Your task to perform on an android device: uninstall "Roku - Official Remote Control" Image 0: 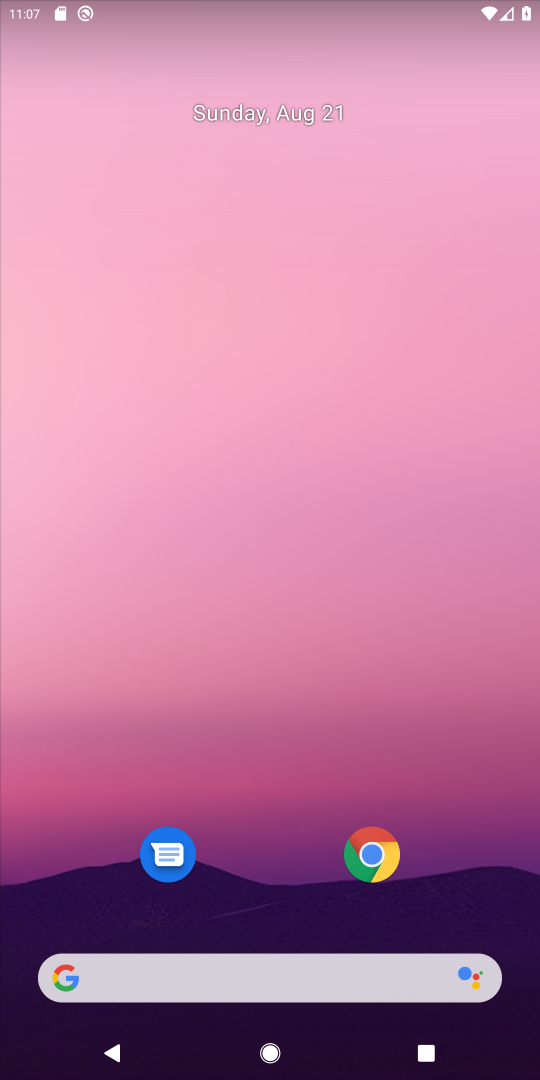
Step 0: click (291, 42)
Your task to perform on an android device: uninstall "Roku - Official Remote Control" Image 1: 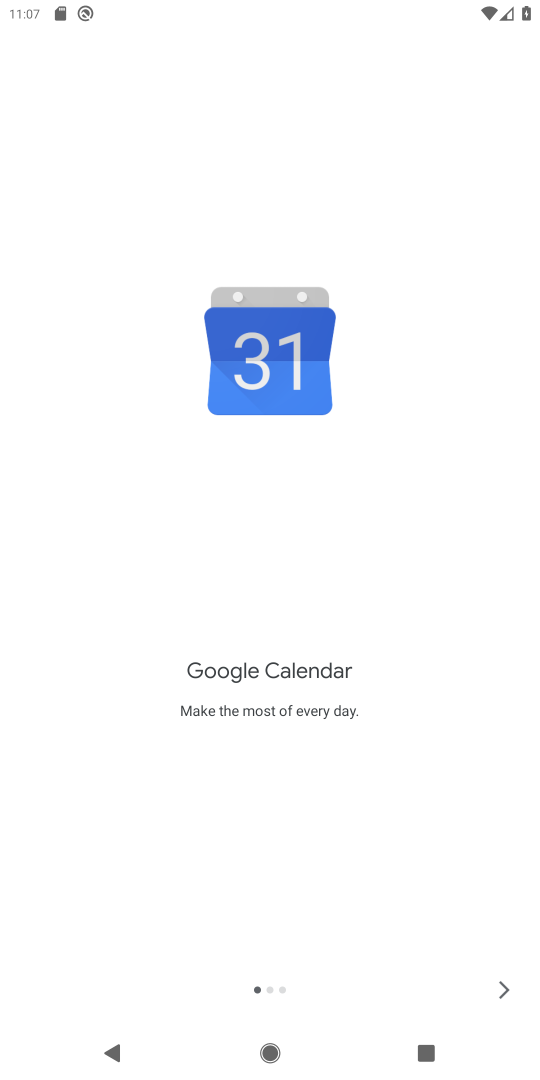
Step 1: press back button
Your task to perform on an android device: uninstall "Roku - Official Remote Control" Image 2: 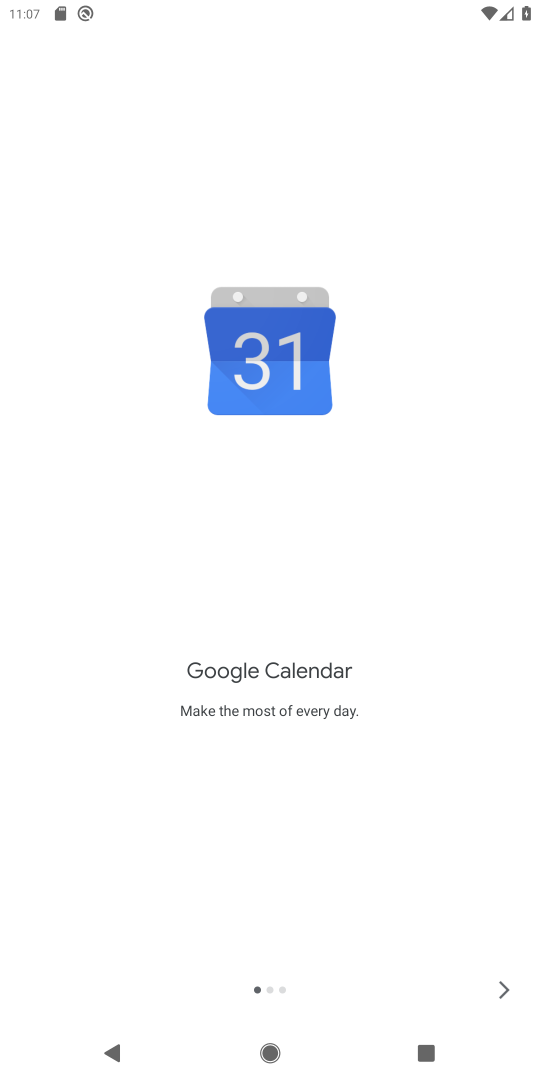
Step 2: press home button
Your task to perform on an android device: uninstall "Roku - Official Remote Control" Image 3: 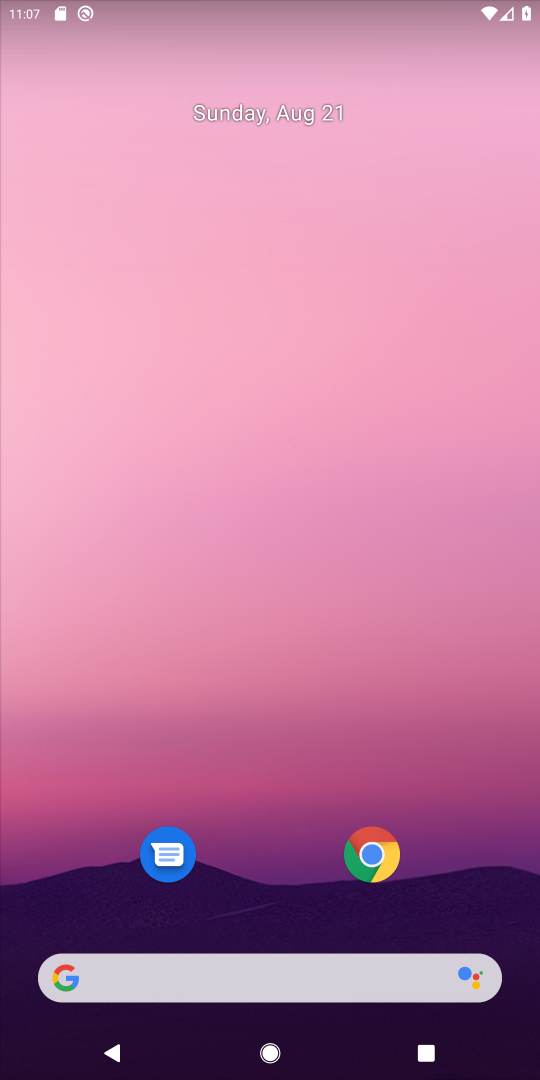
Step 3: drag from (277, 920) to (50, 1)
Your task to perform on an android device: uninstall "Roku - Official Remote Control" Image 4: 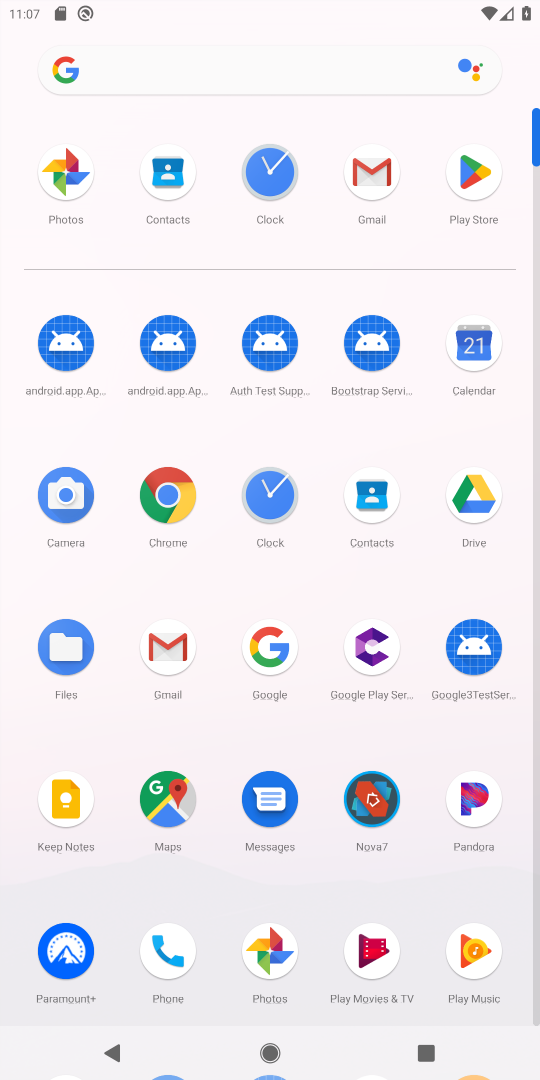
Step 4: click (438, 206)
Your task to perform on an android device: uninstall "Roku - Official Remote Control" Image 5: 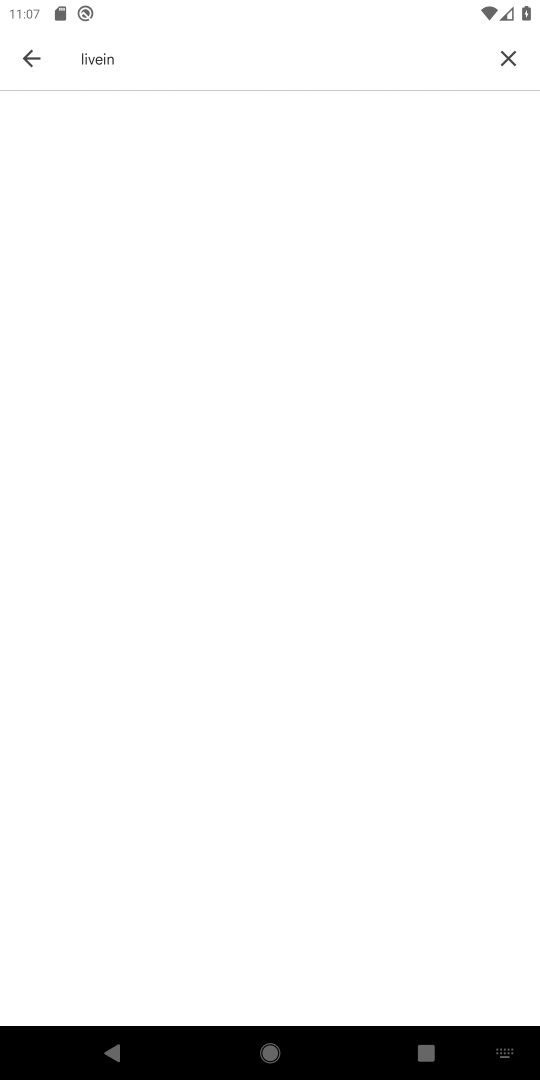
Step 5: click (462, 164)
Your task to perform on an android device: uninstall "Roku - Official Remote Control" Image 6: 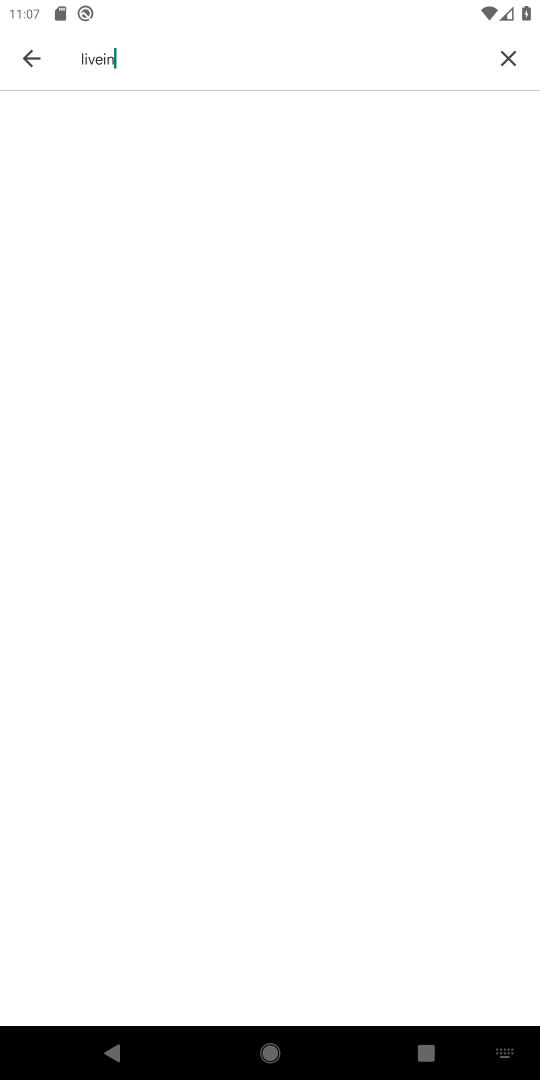
Step 6: click (504, 66)
Your task to perform on an android device: uninstall "Roku - Official Remote Control" Image 7: 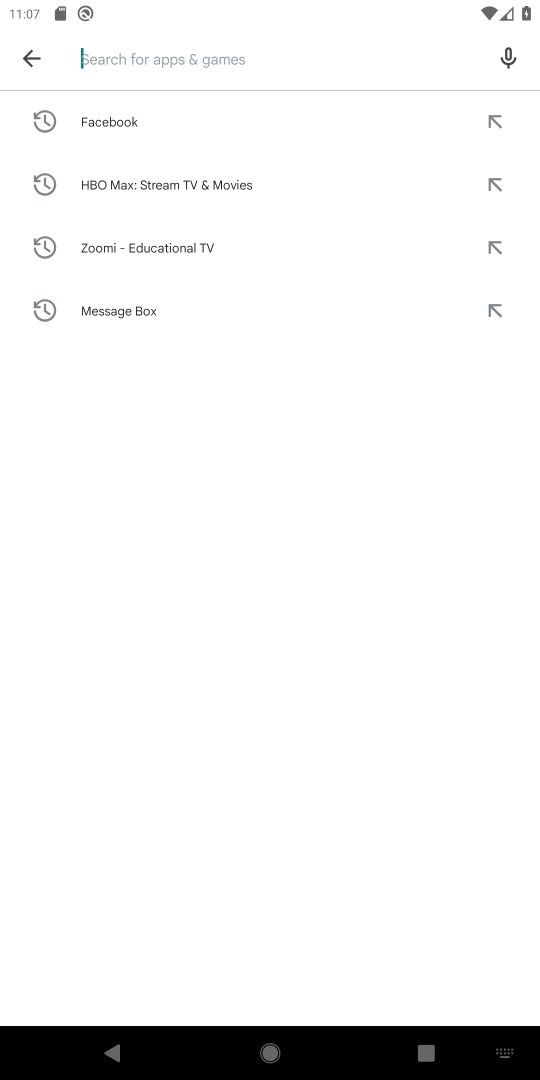
Step 7: type "roku"
Your task to perform on an android device: uninstall "Roku - Official Remote Control" Image 8: 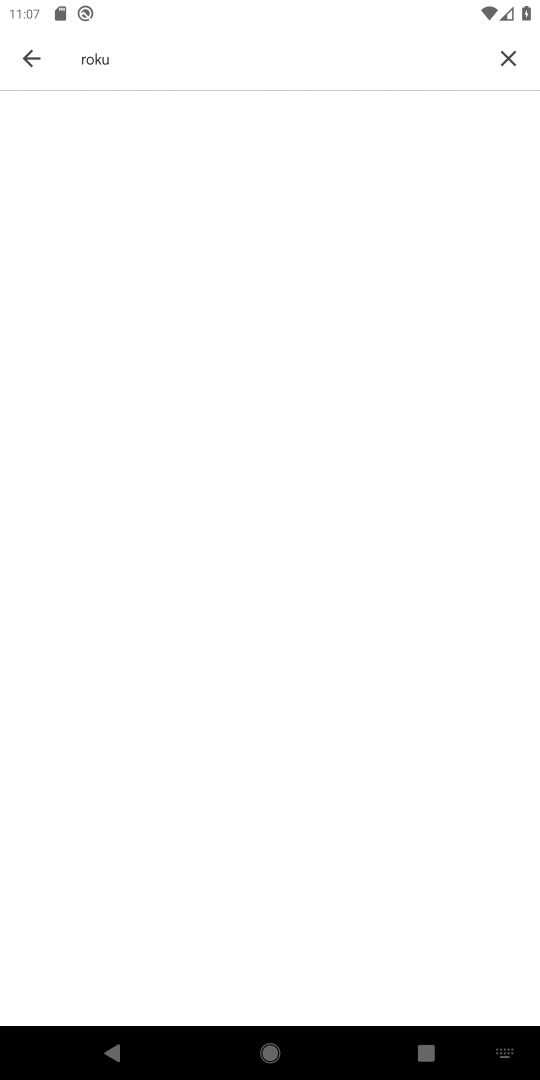
Step 8: task complete